Your task to perform on an android device: open app "DuckDuckGo Privacy Browser" (install if not already installed), go to login, and select forgot password Image 0: 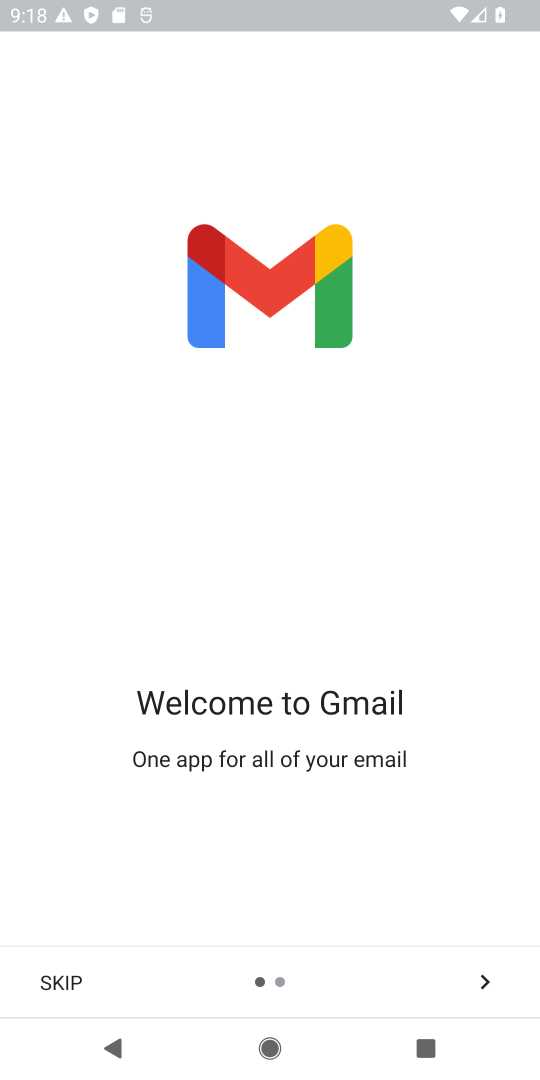
Step 0: click (280, 1036)
Your task to perform on an android device: open app "DuckDuckGo Privacy Browser" (install if not already installed), go to login, and select forgot password Image 1: 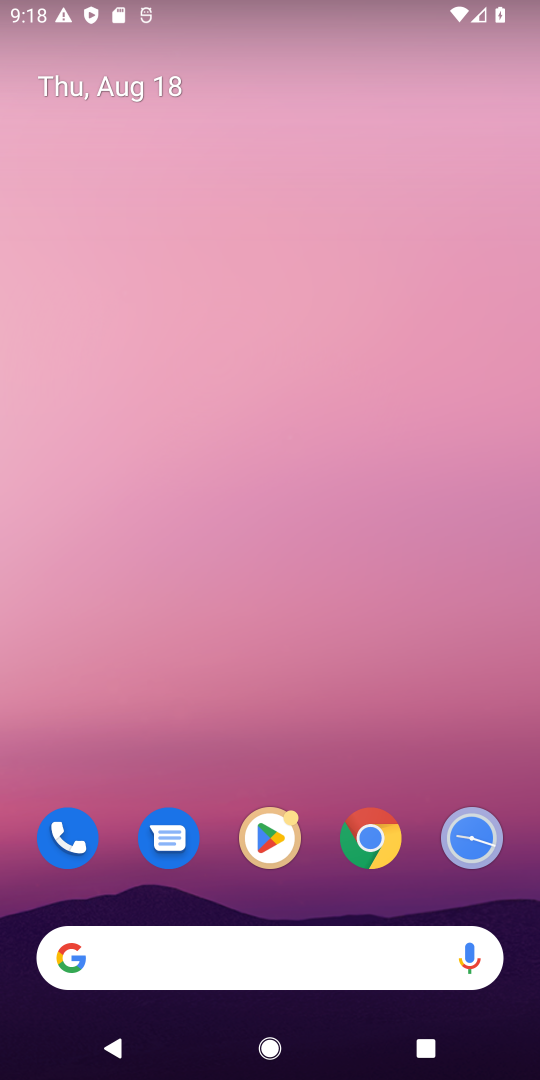
Step 1: click (262, 853)
Your task to perform on an android device: open app "DuckDuckGo Privacy Browser" (install if not already installed), go to login, and select forgot password Image 2: 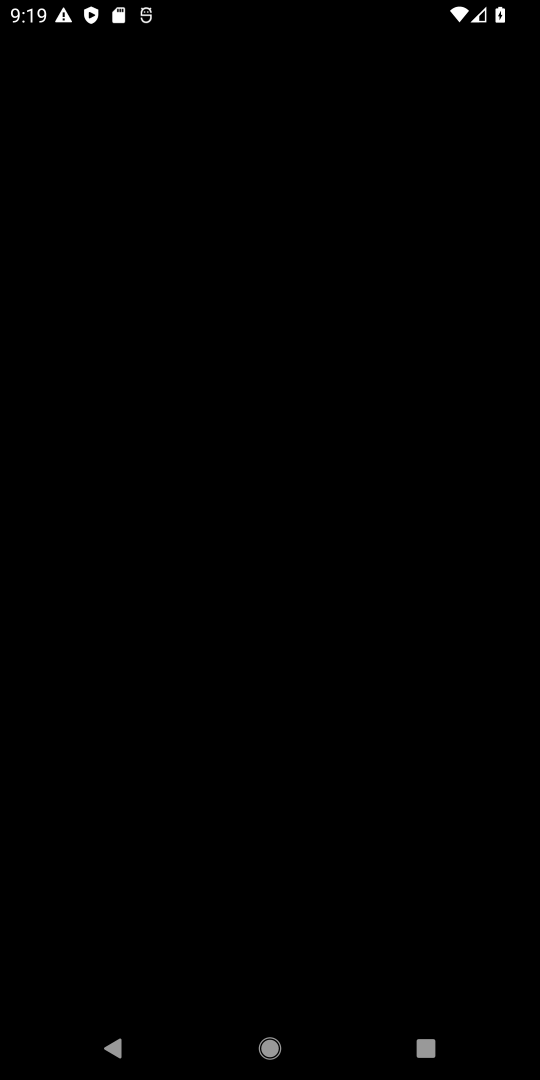
Step 2: click (270, 1037)
Your task to perform on an android device: open app "DuckDuckGo Privacy Browser" (install if not already installed), go to login, and select forgot password Image 3: 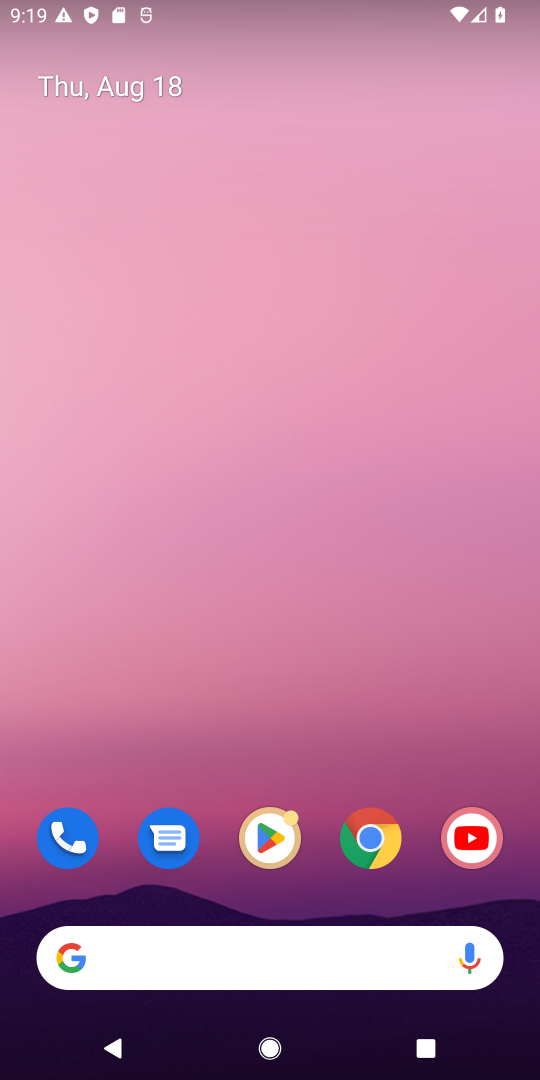
Step 3: click (292, 840)
Your task to perform on an android device: open app "DuckDuckGo Privacy Browser" (install if not already installed), go to login, and select forgot password Image 4: 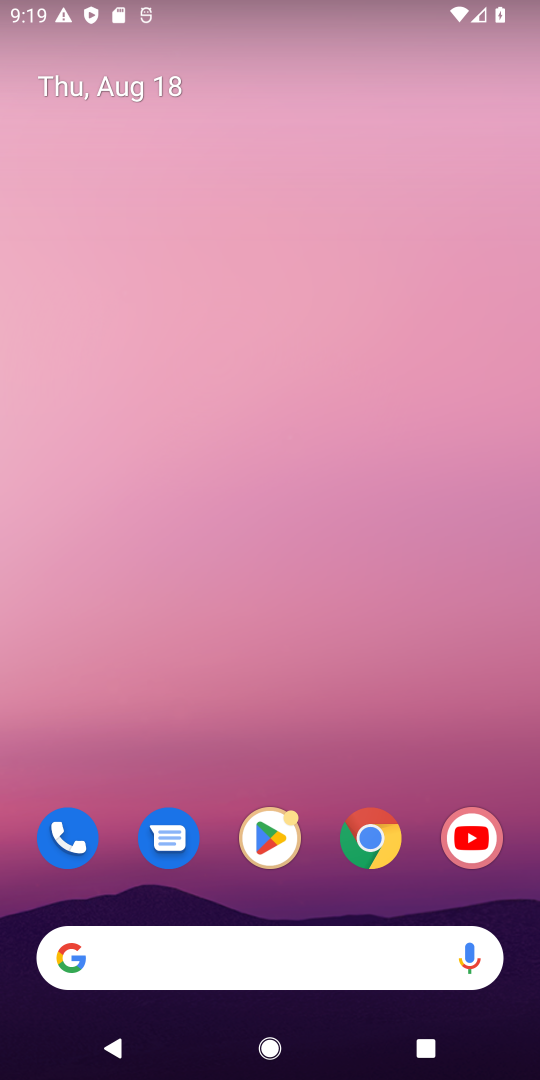
Step 4: click (292, 840)
Your task to perform on an android device: open app "DuckDuckGo Privacy Browser" (install if not already installed), go to login, and select forgot password Image 5: 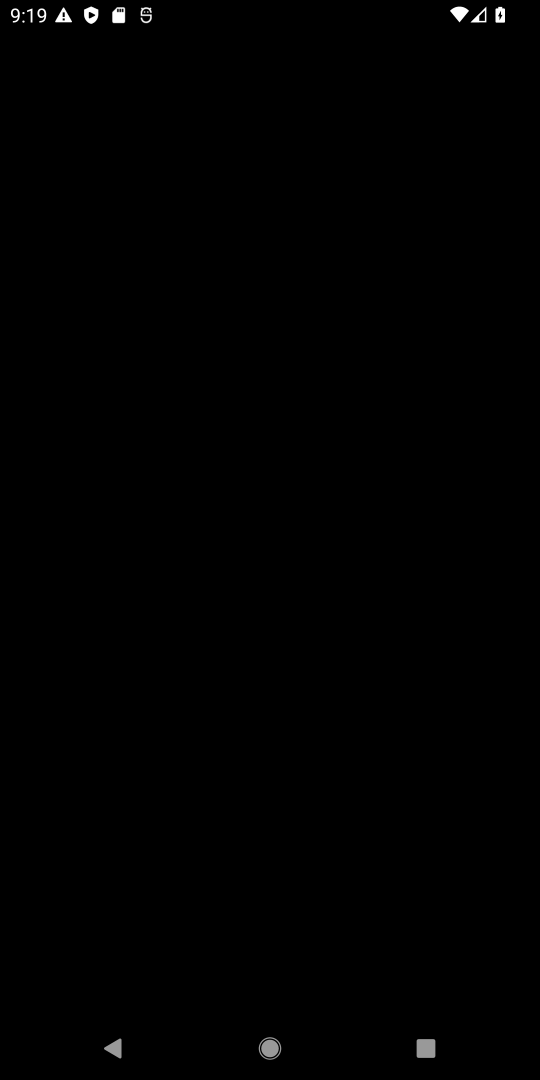
Step 5: task complete